Your task to perform on an android device: turn on javascript in the chrome app Image 0: 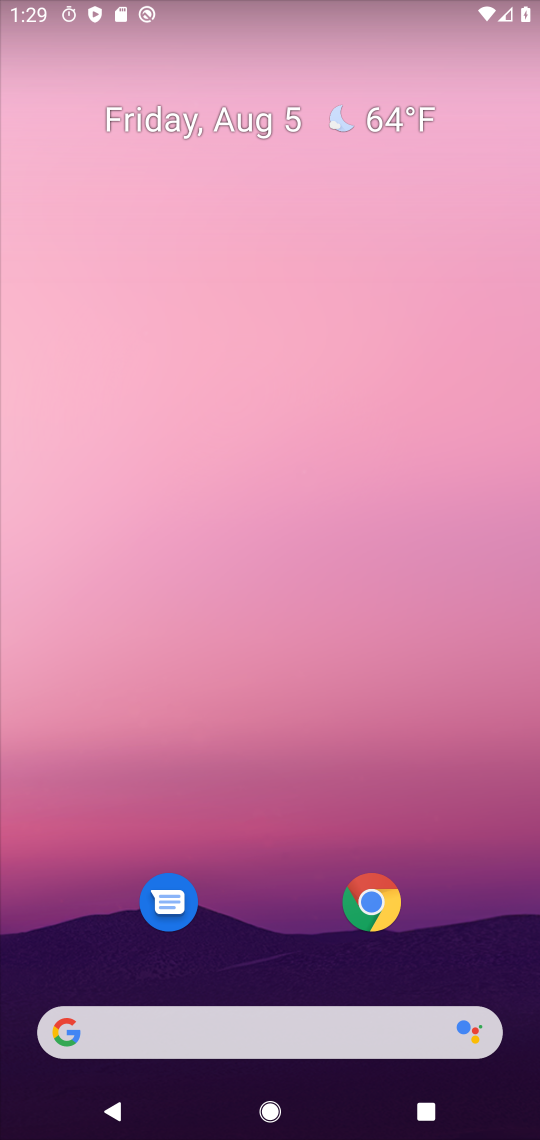
Step 0: press home button
Your task to perform on an android device: turn on javascript in the chrome app Image 1: 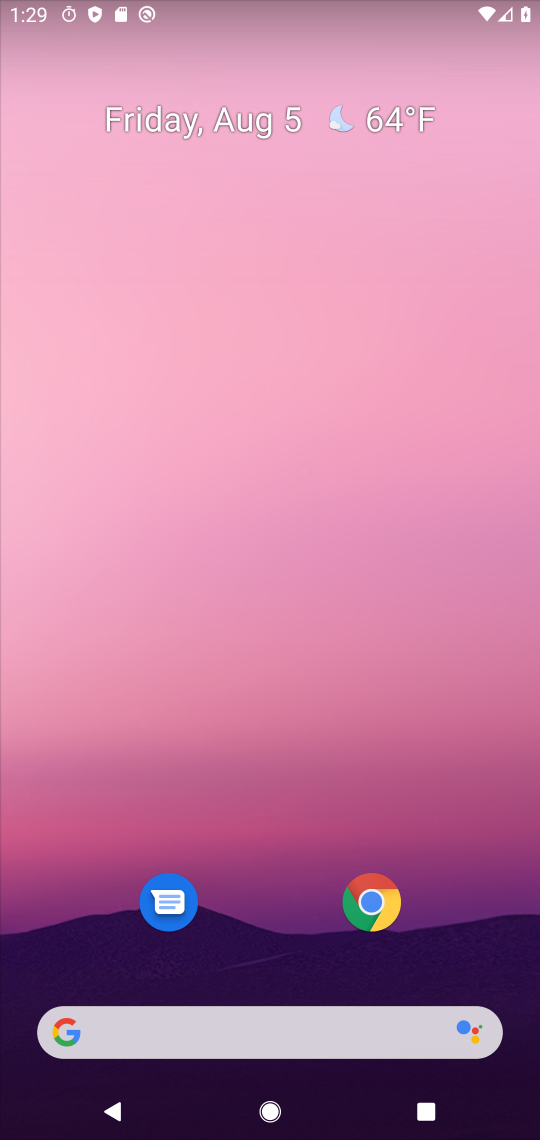
Step 1: drag from (362, 1077) to (338, 390)
Your task to perform on an android device: turn on javascript in the chrome app Image 2: 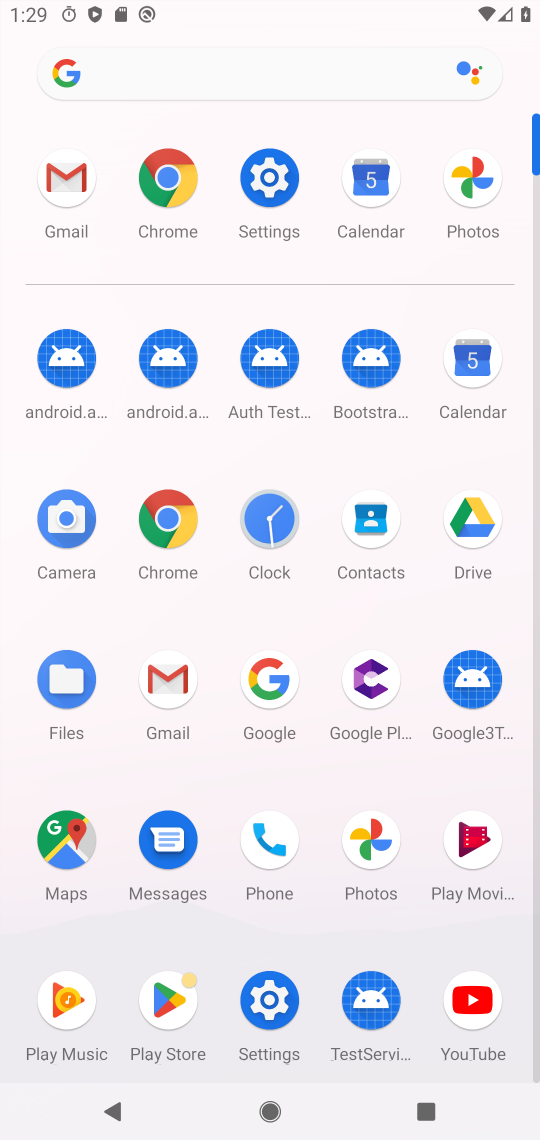
Step 2: click (166, 172)
Your task to perform on an android device: turn on javascript in the chrome app Image 3: 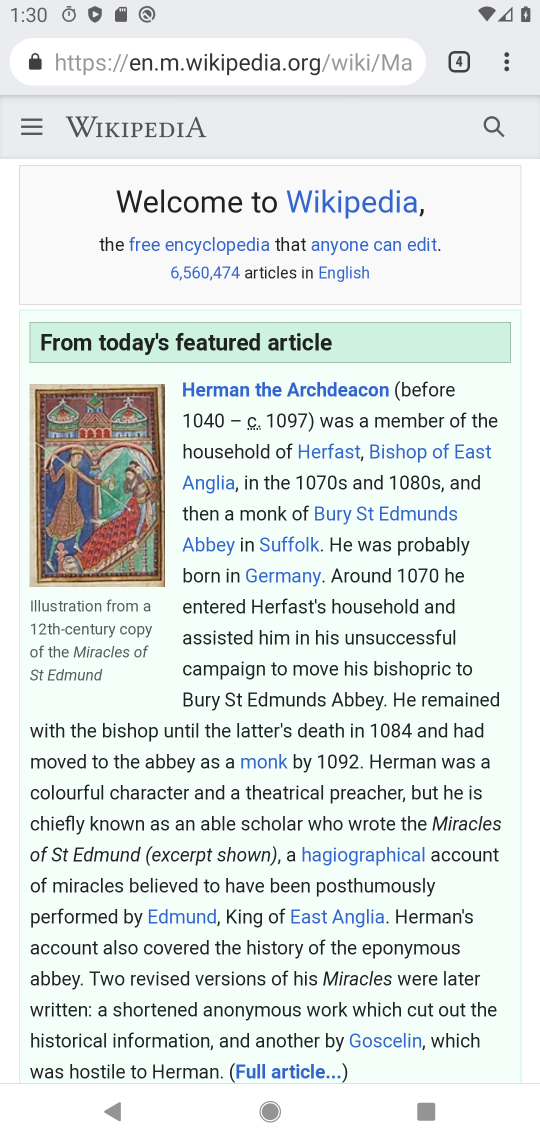
Step 3: click (506, 72)
Your task to perform on an android device: turn on javascript in the chrome app Image 4: 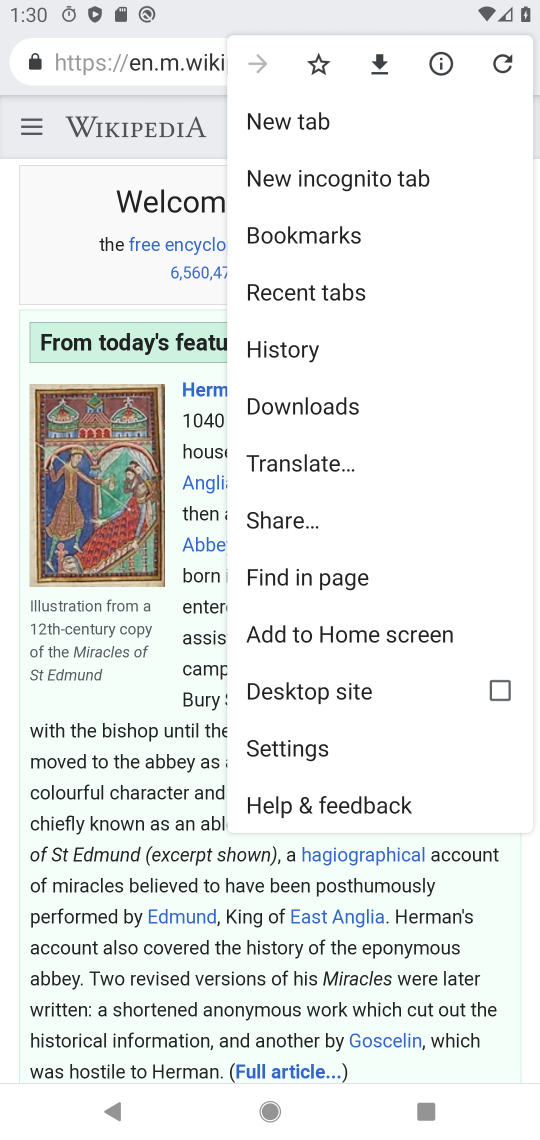
Step 4: click (295, 747)
Your task to perform on an android device: turn on javascript in the chrome app Image 5: 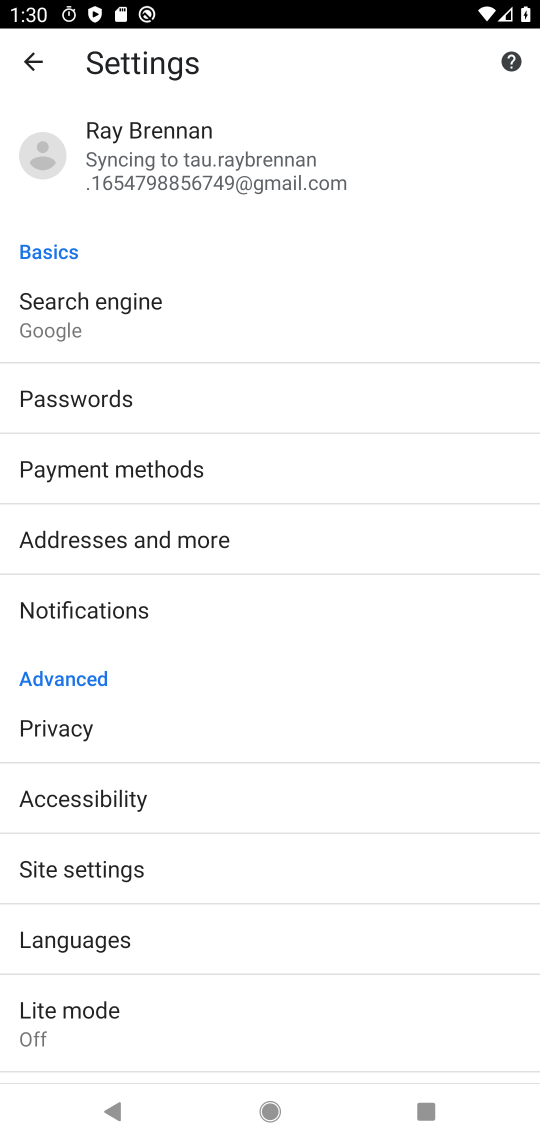
Step 5: click (82, 871)
Your task to perform on an android device: turn on javascript in the chrome app Image 6: 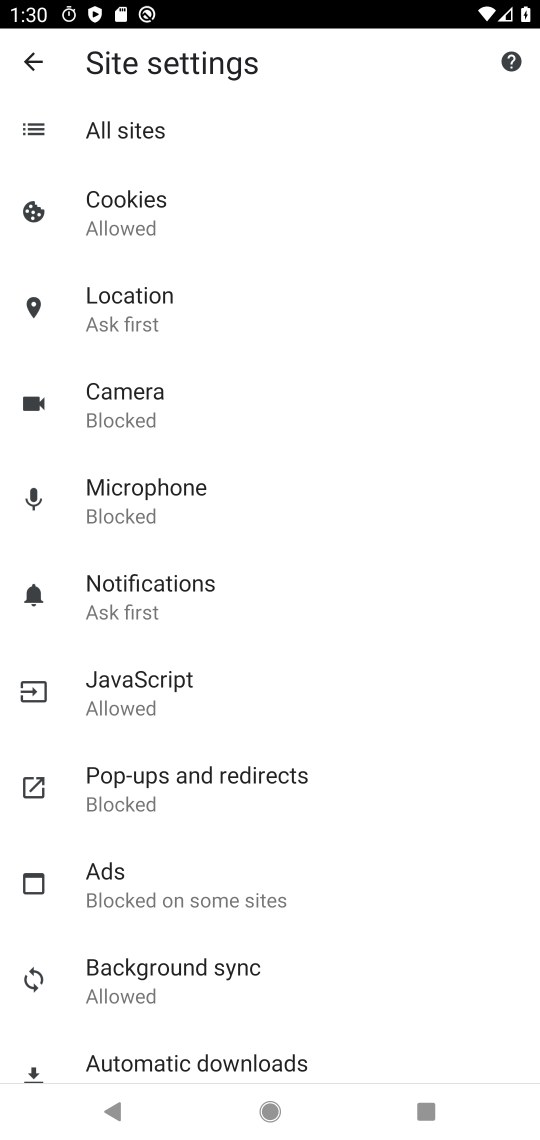
Step 6: click (166, 689)
Your task to perform on an android device: turn on javascript in the chrome app Image 7: 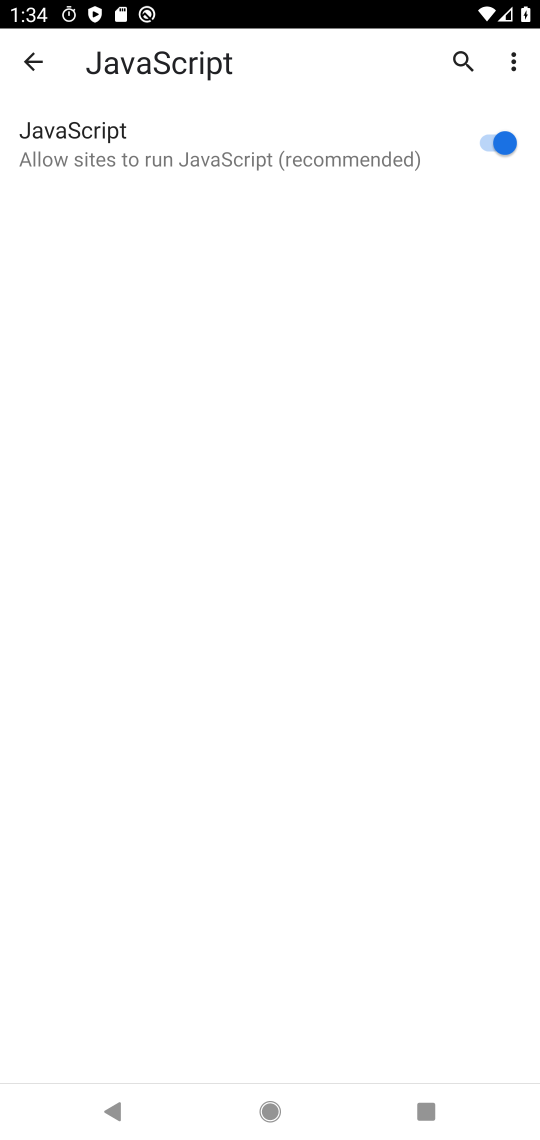
Step 7: task complete